Your task to perform on an android device: toggle priority inbox in the gmail app Image 0: 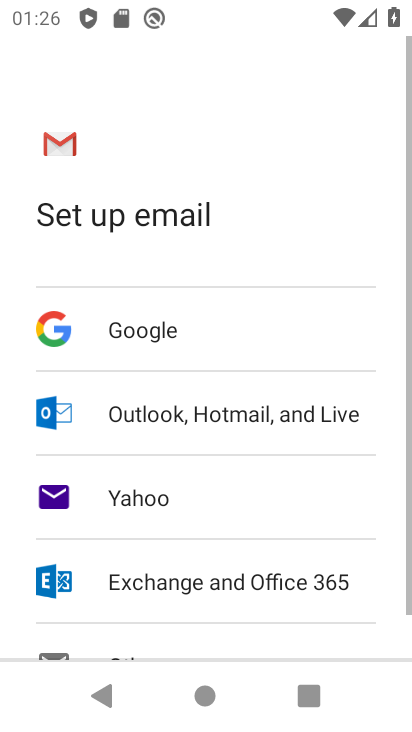
Step 0: press home button
Your task to perform on an android device: toggle priority inbox in the gmail app Image 1: 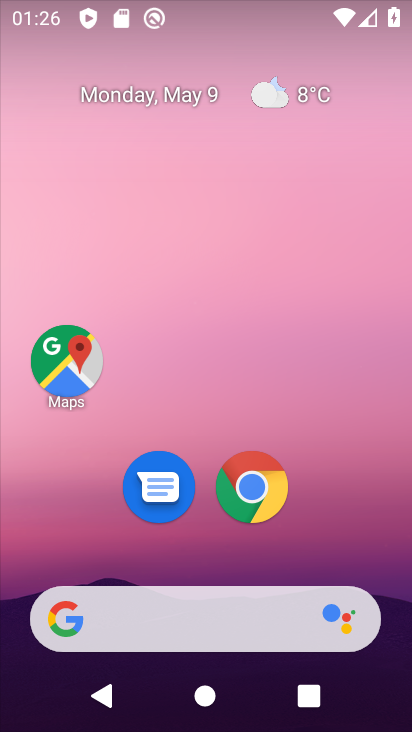
Step 1: drag from (350, 543) to (311, 7)
Your task to perform on an android device: toggle priority inbox in the gmail app Image 2: 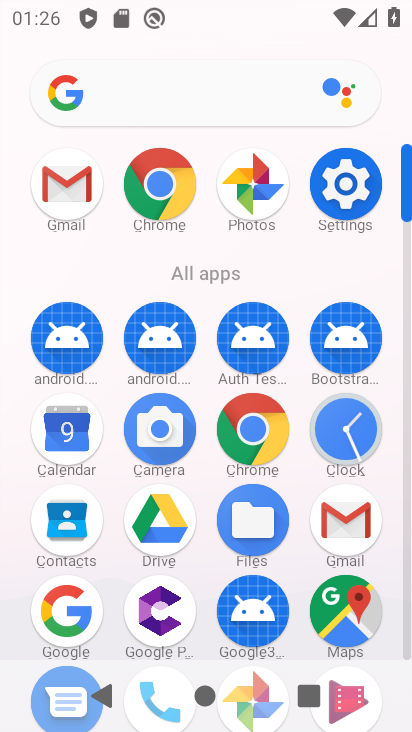
Step 2: click (348, 526)
Your task to perform on an android device: toggle priority inbox in the gmail app Image 3: 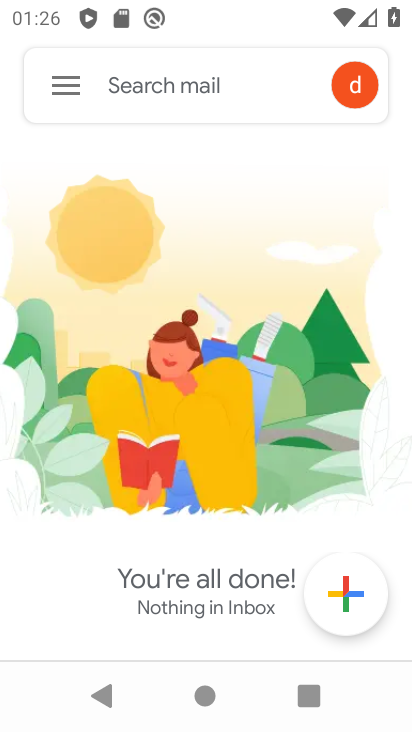
Step 3: click (70, 77)
Your task to perform on an android device: toggle priority inbox in the gmail app Image 4: 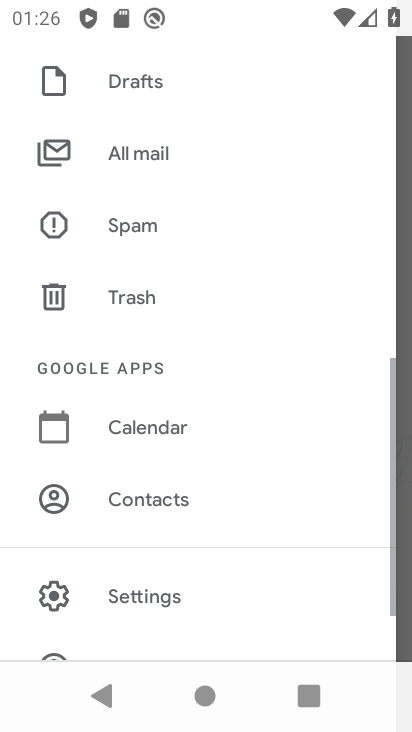
Step 4: click (156, 591)
Your task to perform on an android device: toggle priority inbox in the gmail app Image 5: 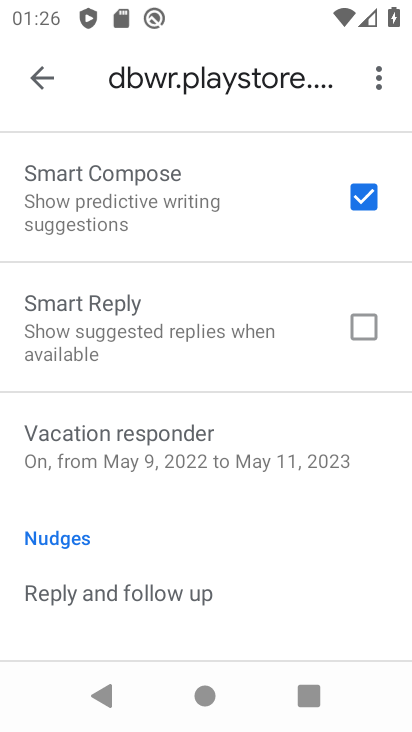
Step 5: drag from (276, 275) to (262, 716)
Your task to perform on an android device: toggle priority inbox in the gmail app Image 6: 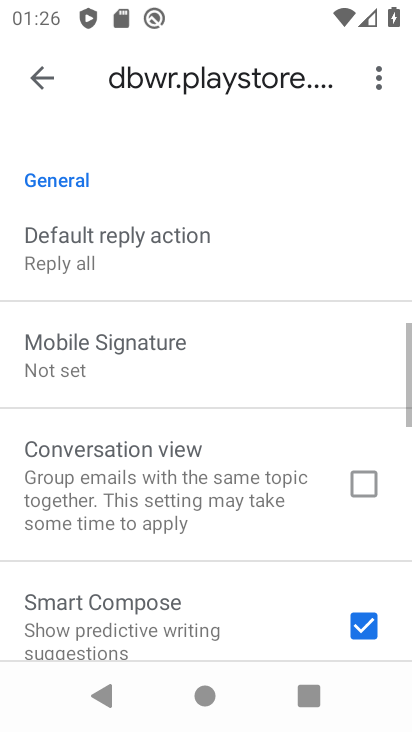
Step 6: drag from (211, 155) to (248, 728)
Your task to perform on an android device: toggle priority inbox in the gmail app Image 7: 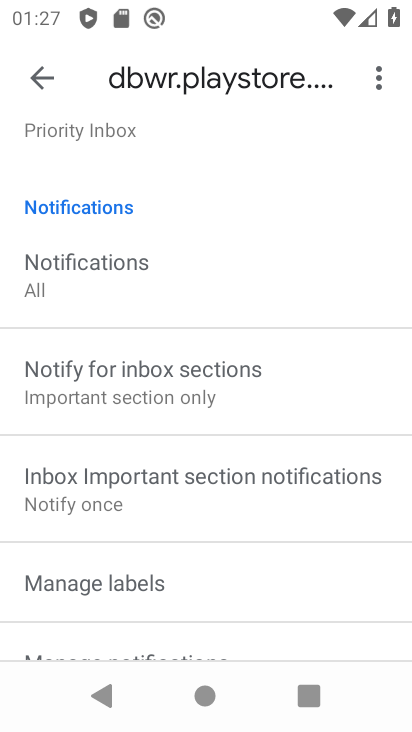
Step 7: click (147, 132)
Your task to perform on an android device: toggle priority inbox in the gmail app Image 8: 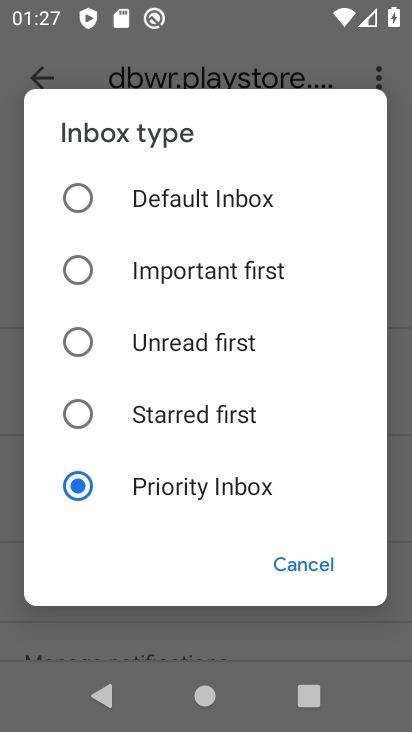
Step 8: click (138, 182)
Your task to perform on an android device: toggle priority inbox in the gmail app Image 9: 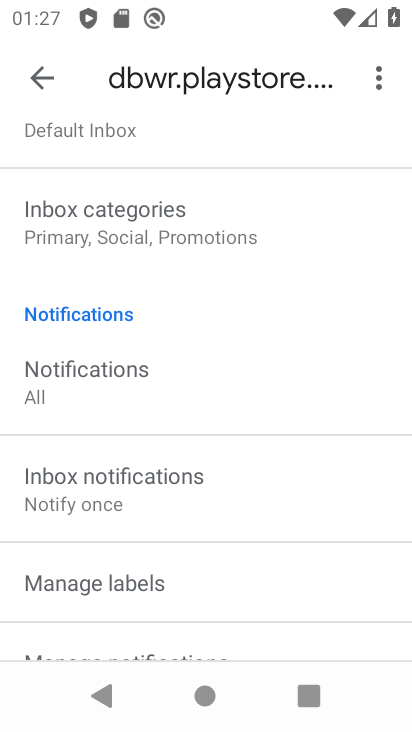
Step 9: task complete